Your task to perform on an android device: Search for hotels in Orlando Image 0: 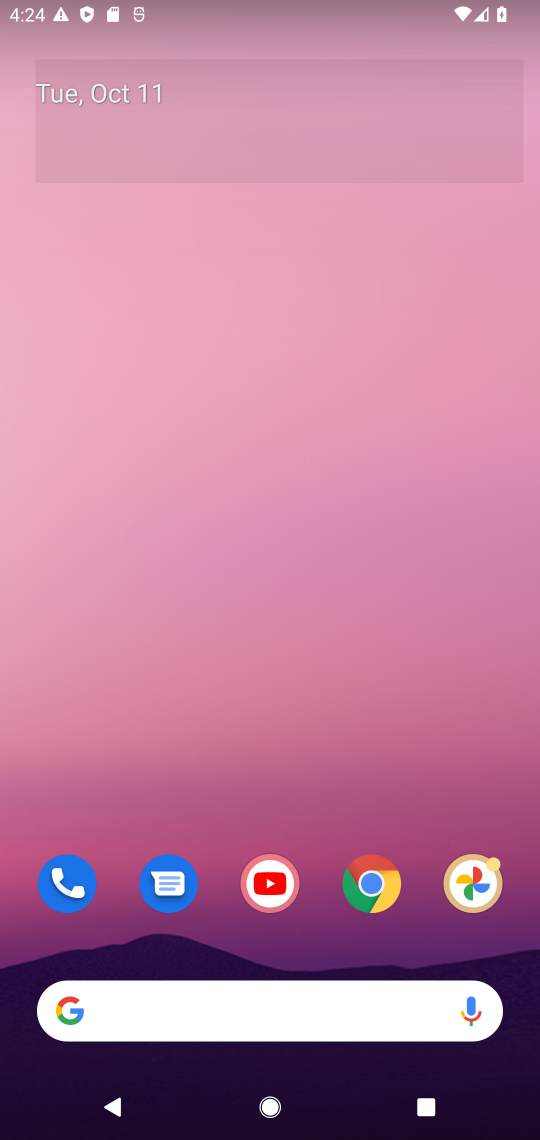
Step 0: drag from (328, 935) to (299, 115)
Your task to perform on an android device: Search for hotels in Orlando Image 1: 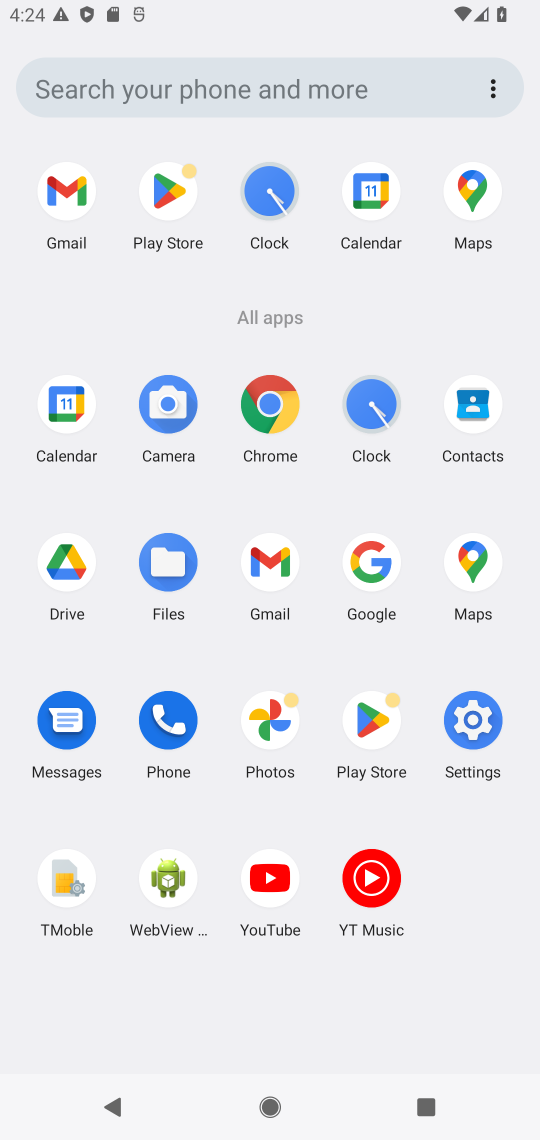
Step 1: click (269, 413)
Your task to perform on an android device: Search for hotels in Orlando Image 2: 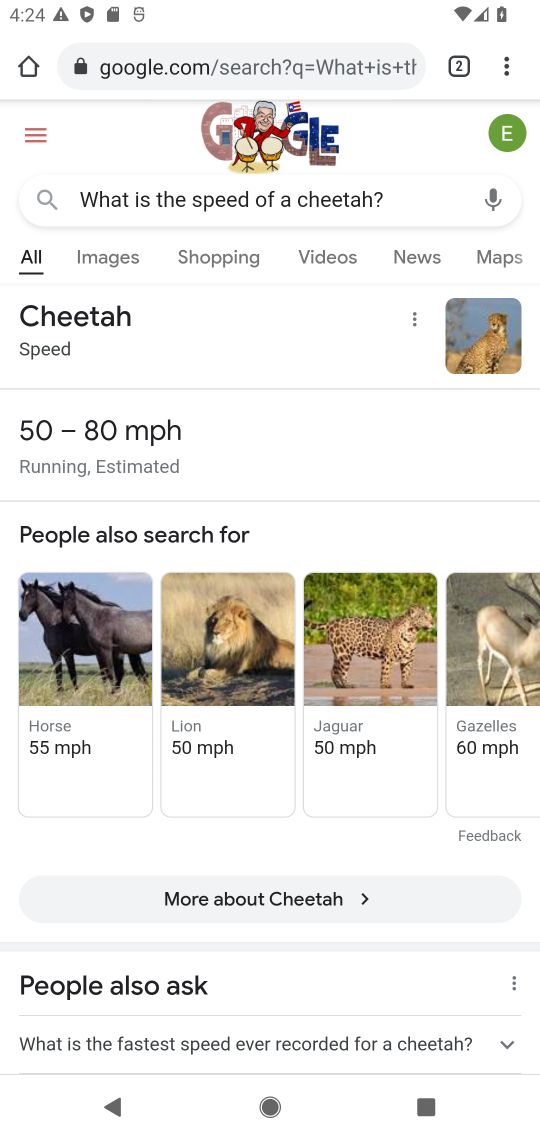
Step 2: click (257, 69)
Your task to perform on an android device: Search for hotels in Orlando Image 3: 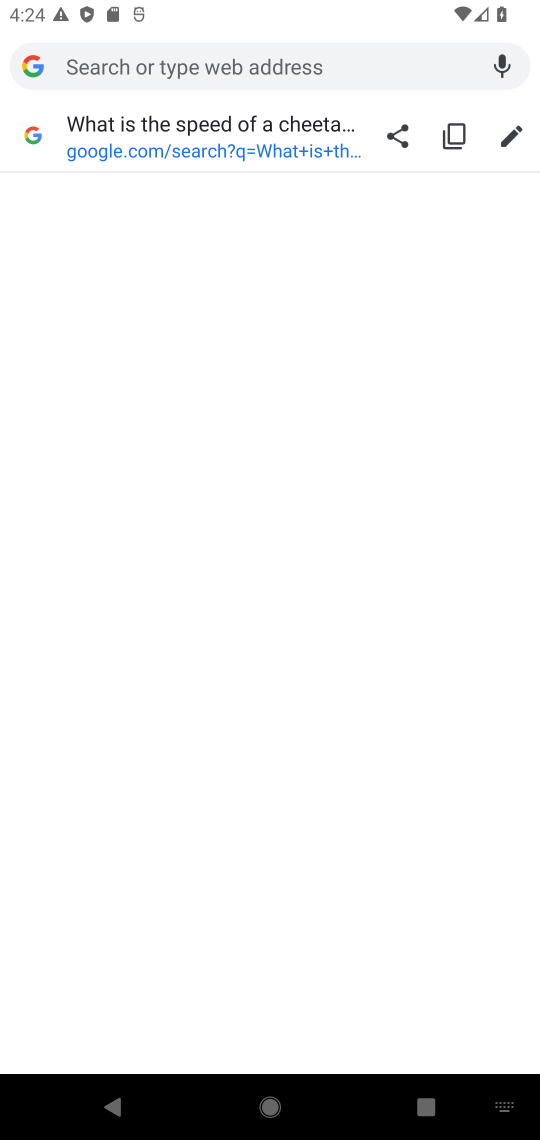
Step 3: type "hotels in orlando"
Your task to perform on an android device: Search for hotels in Orlando Image 4: 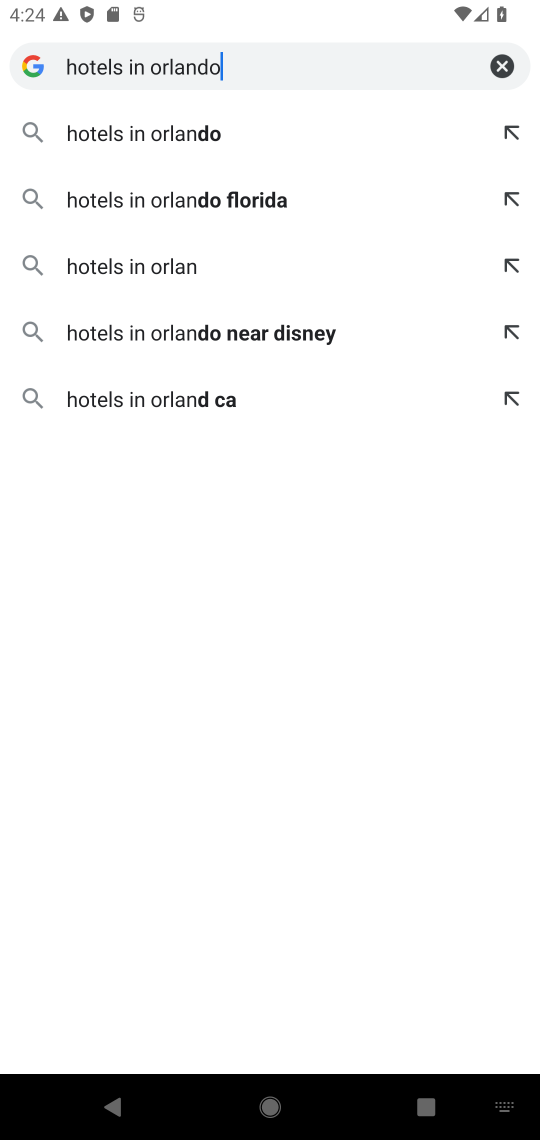
Step 4: press enter
Your task to perform on an android device: Search for hotels in Orlando Image 5: 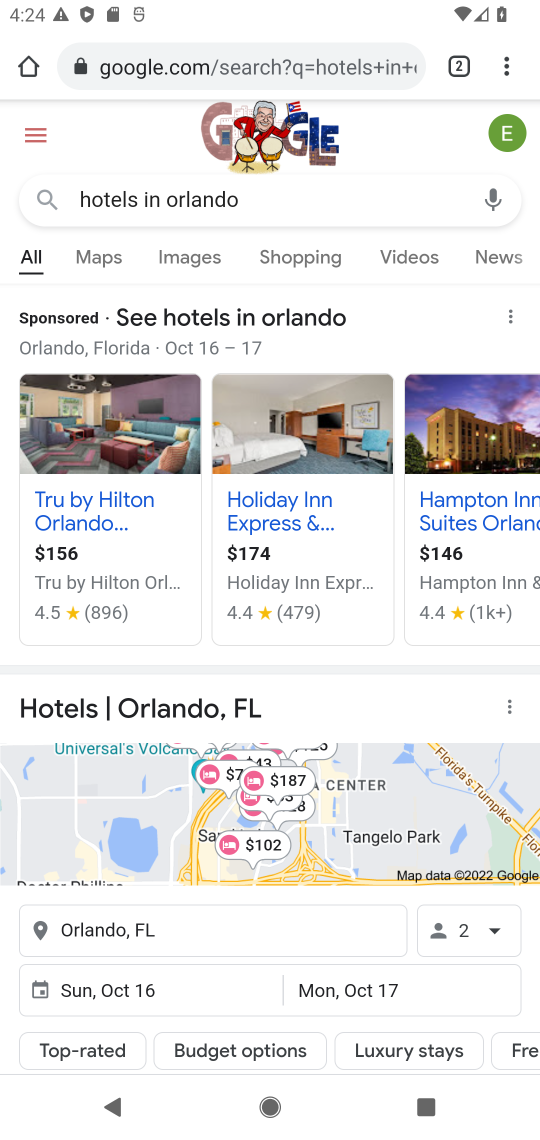
Step 5: task complete